Your task to perform on an android device: Open display settings Image 0: 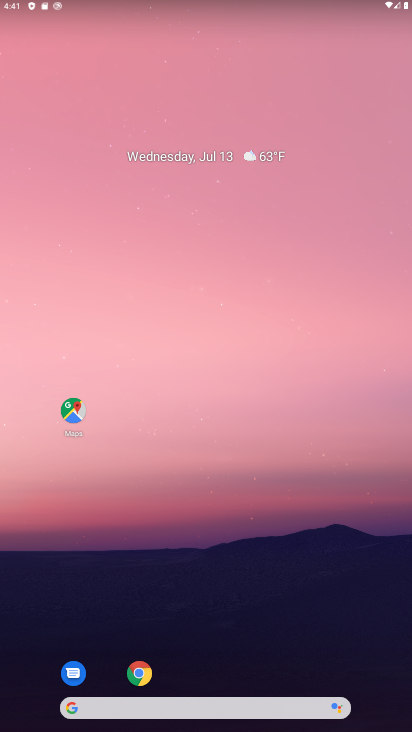
Step 0: drag from (234, 663) to (248, 121)
Your task to perform on an android device: Open display settings Image 1: 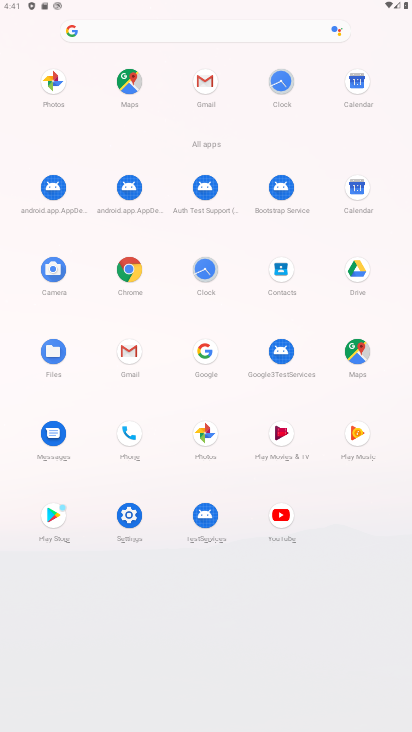
Step 1: click (128, 517)
Your task to perform on an android device: Open display settings Image 2: 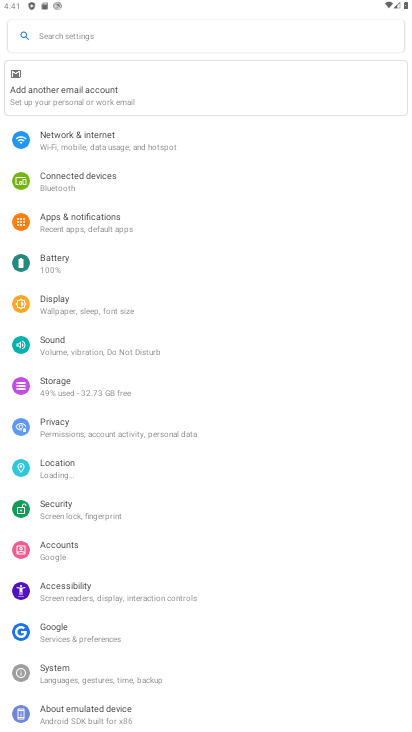
Step 2: click (86, 312)
Your task to perform on an android device: Open display settings Image 3: 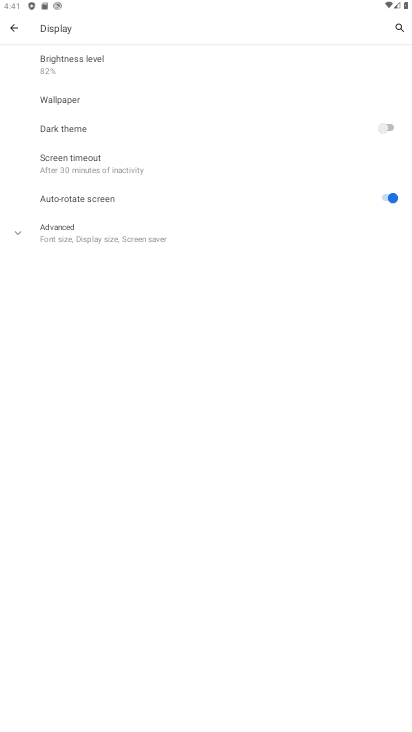
Step 3: task complete